Your task to perform on an android device: Go to Google Image 0: 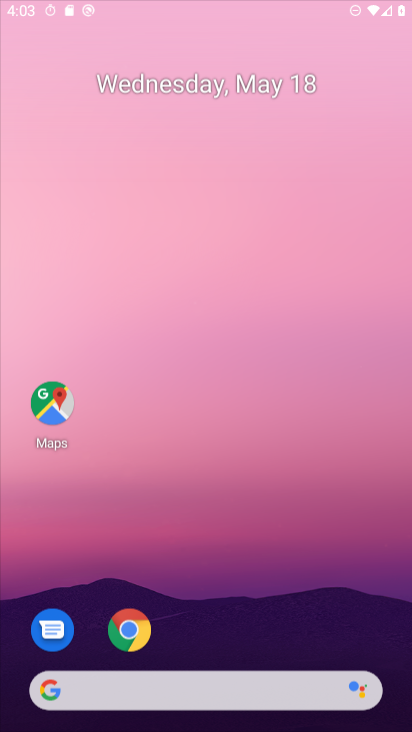
Step 0: press home button
Your task to perform on an android device: Go to Google Image 1: 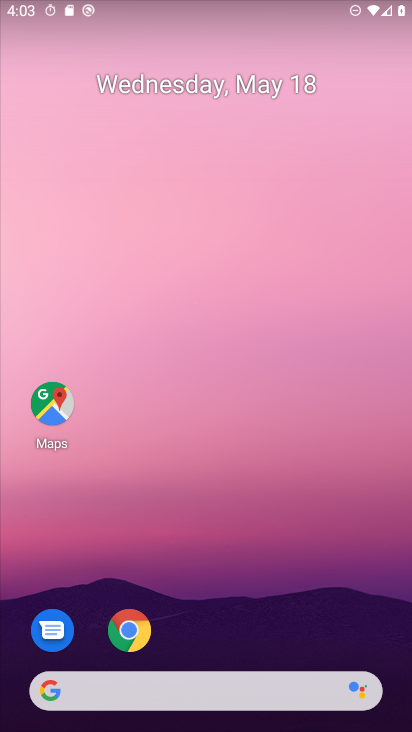
Step 1: drag from (211, 636) to (239, 167)
Your task to perform on an android device: Go to Google Image 2: 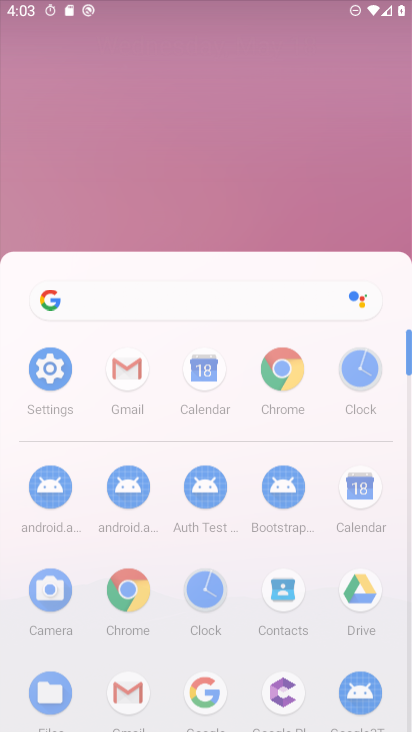
Step 2: click (239, 105)
Your task to perform on an android device: Go to Google Image 3: 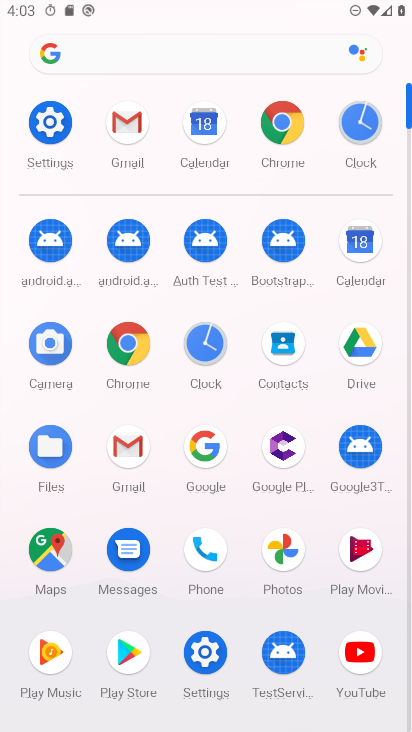
Step 3: click (205, 437)
Your task to perform on an android device: Go to Google Image 4: 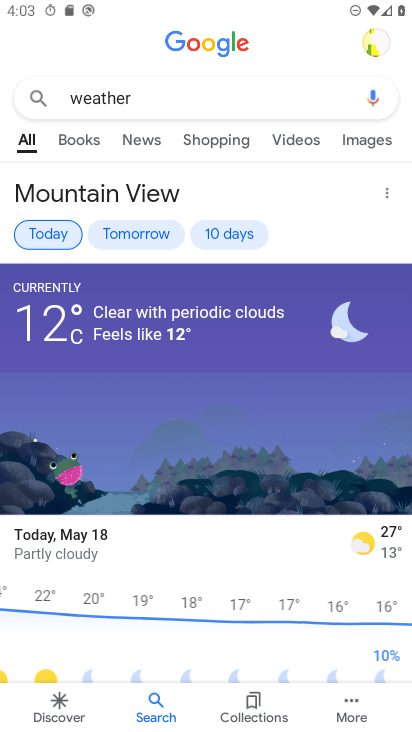
Step 4: drag from (218, 561) to (240, 276)
Your task to perform on an android device: Go to Google Image 5: 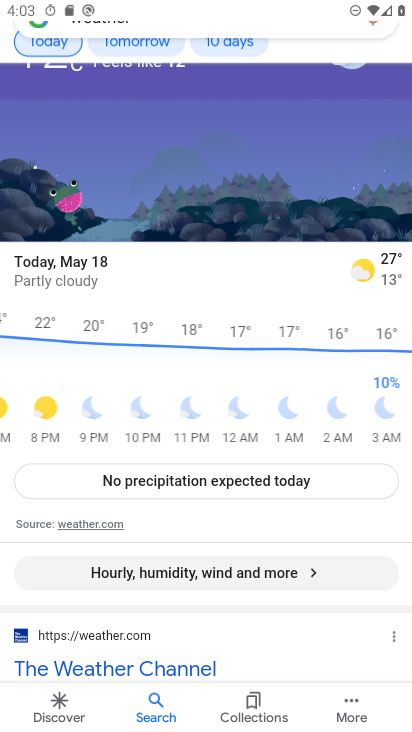
Step 5: click (243, 232)
Your task to perform on an android device: Go to Google Image 6: 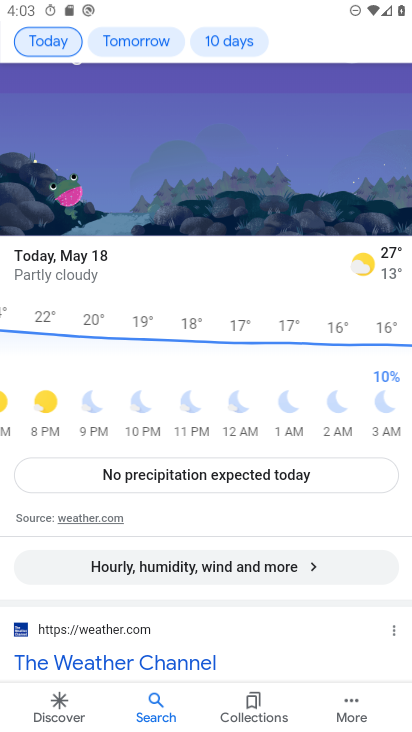
Step 6: task complete